Your task to perform on an android device: When is my next meeting? Image 0: 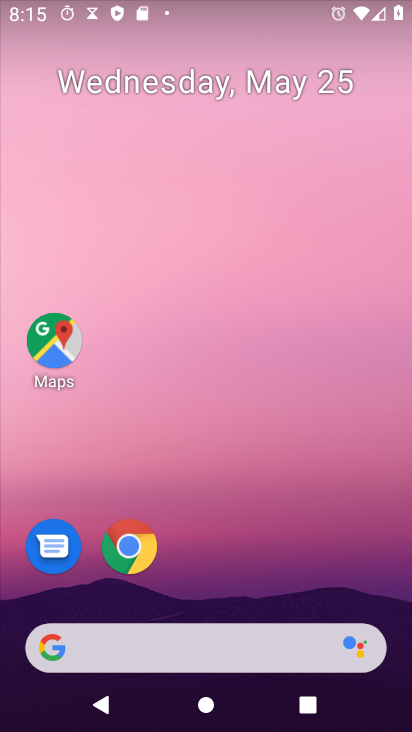
Step 0: drag from (261, 559) to (289, 26)
Your task to perform on an android device: When is my next meeting? Image 1: 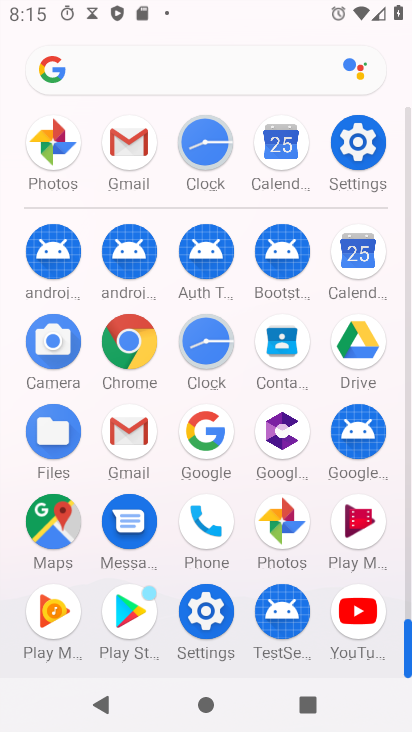
Step 1: click (342, 307)
Your task to perform on an android device: When is my next meeting? Image 2: 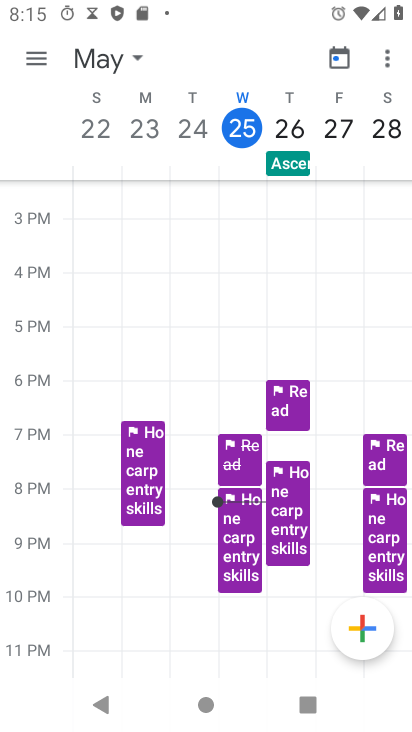
Step 2: click (53, 74)
Your task to perform on an android device: When is my next meeting? Image 3: 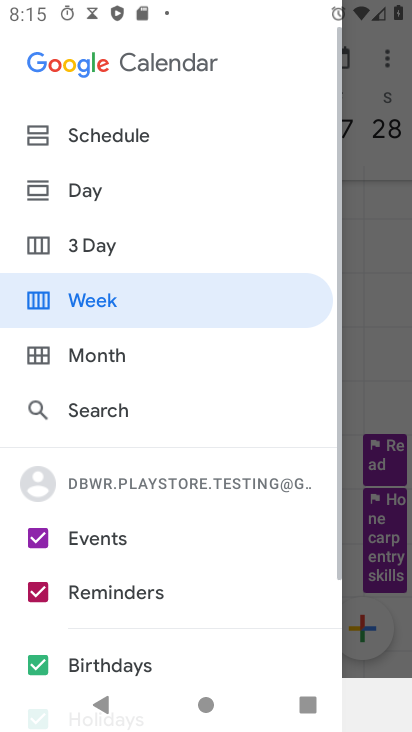
Step 3: click (90, 124)
Your task to perform on an android device: When is my next meeting? Image 4: 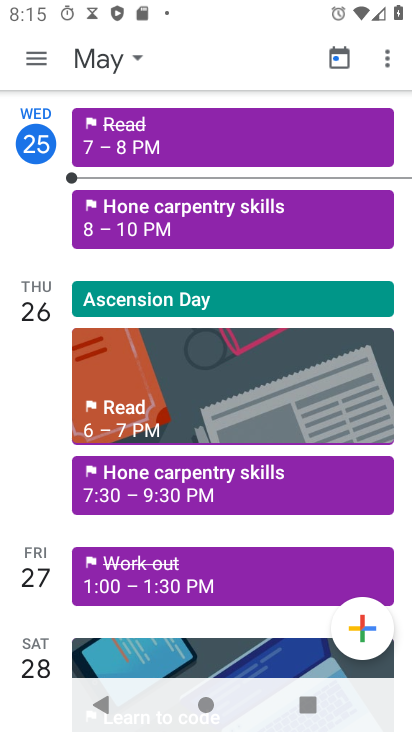
Step 4: task complete